Your task to perform on an android device: toggle wifi Image 0: 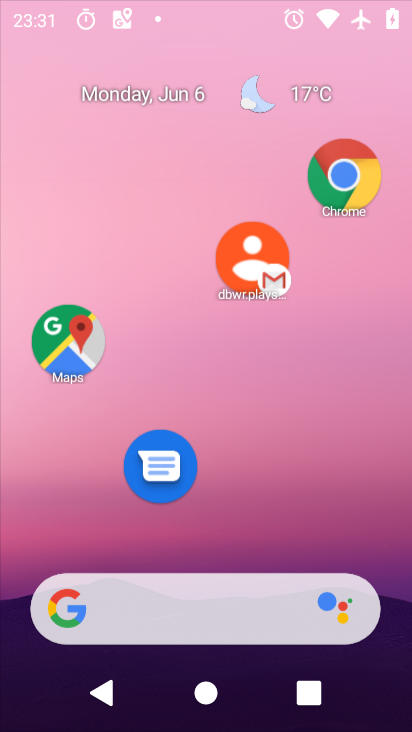
Step 0: click (218, 182)
Your task to perform on an android device: toggle wifi Image 1: 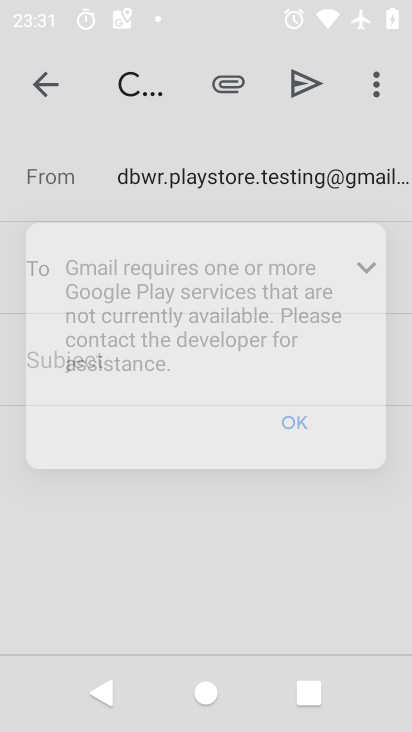
Step 1: drag from (215, 558) to (262, 182)
Your task to perform on an android device: toggle wifi Image 2: 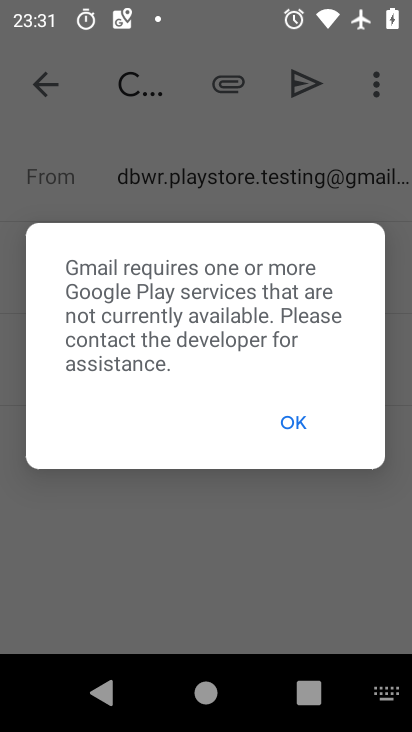
Step 2: press home button
Your task to perform on an android device: toggle wifi Image 3: 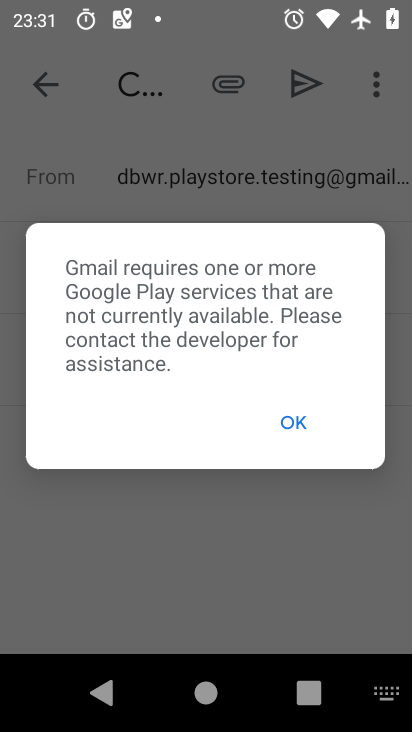
Step 3: drag from (331, 515) to (363, 99)
Your task to perform on an android device: toggle wifi Image 4: 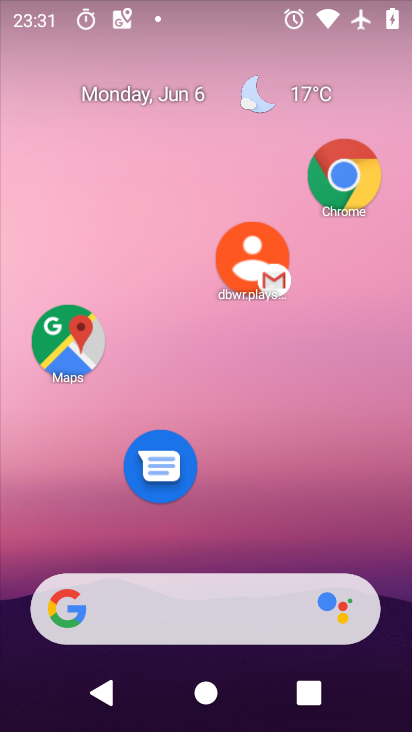
Step 4: drag from (257, 488) to (266, 36)
Your task to perform on an android device: toggle wifi Image 5: 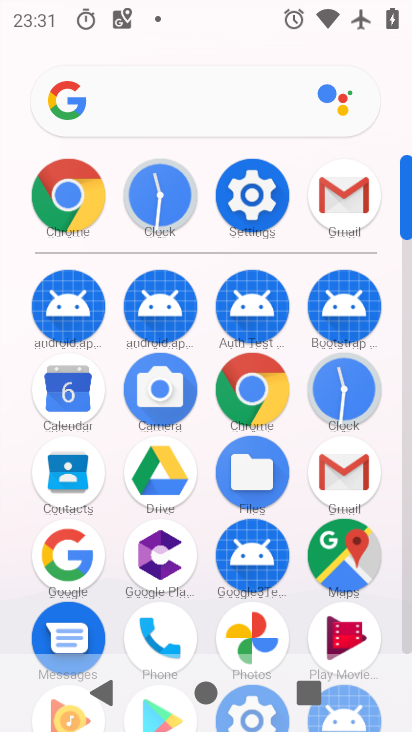
Step 5: click (246, 198)
Your task to perform on an android device: toggle wifi Image 6: 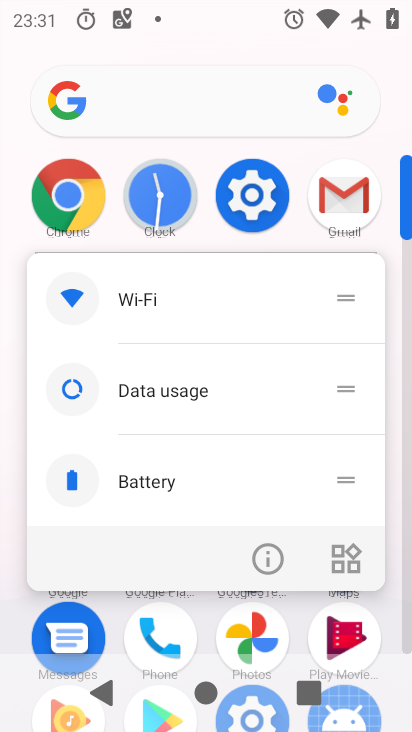
Step 6: click (262, 557)
Your task to perform on an android device: toggle wifi Image 7: 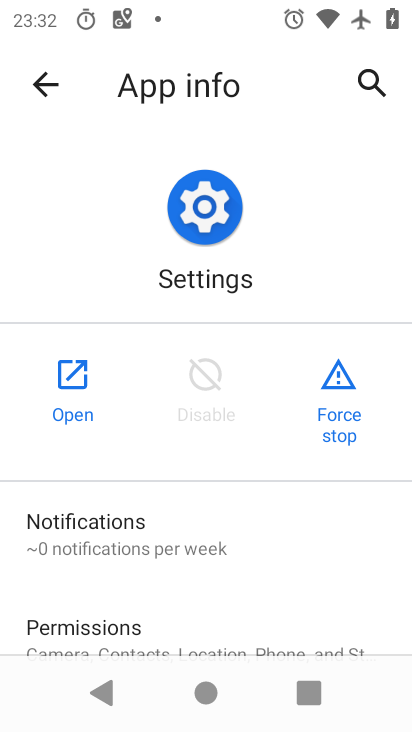
Step 7: click (68, 383)
Your task to perform on an android device: toggle wifi Image 8: 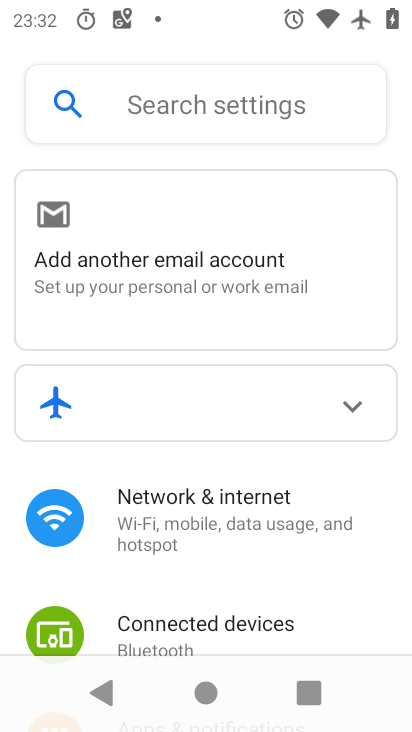
Step 8: click (181, 502)
Your task to perform on an android device: toggle wifi Image 9: 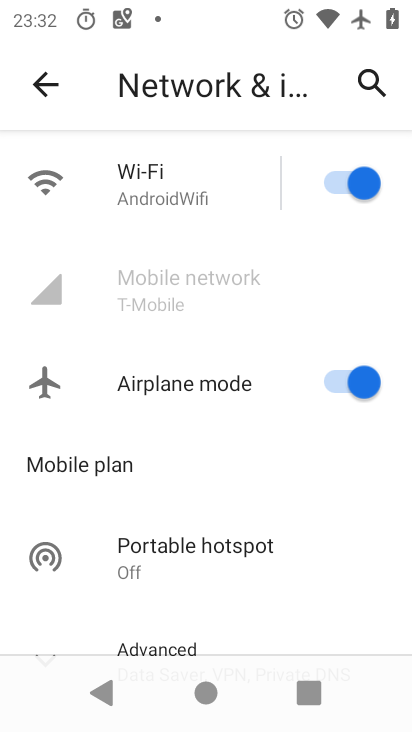
Step 9: click (354, 186)
Your task to perform on an android device: toggle wifi Image 10: 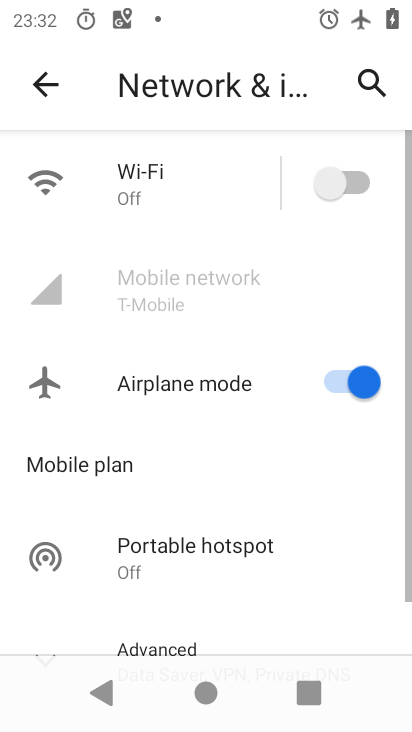
Step 10: task complete